Your task to perform on an android device: Go to notification settings Image 0: 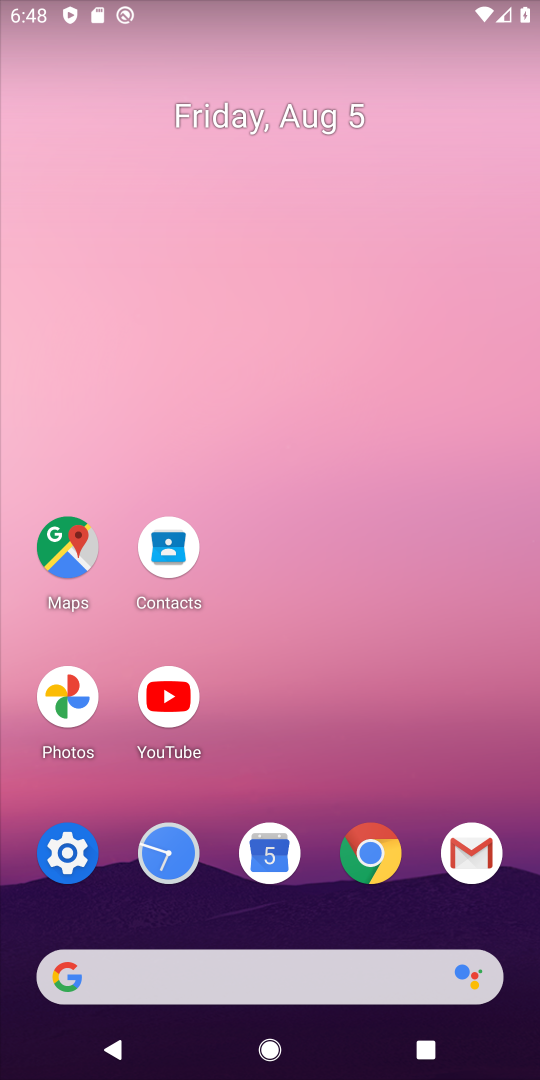
Step 0: click (62, 849)
Your task to perform on an android device: Go to notification settings Image 1: 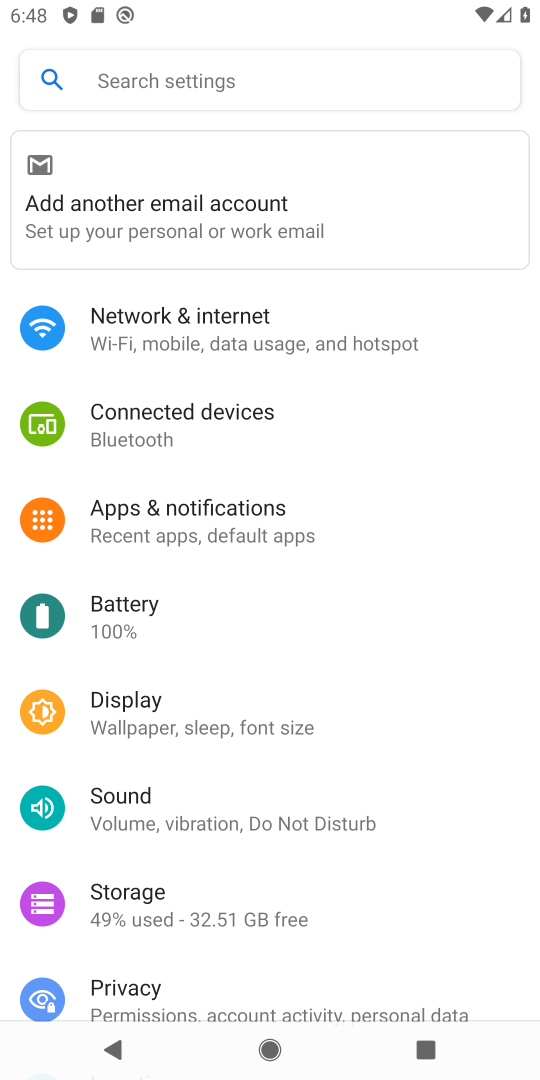
Step 1: click (186, 507)
Your task to perform on an android device: Go to notification settings Image 2: 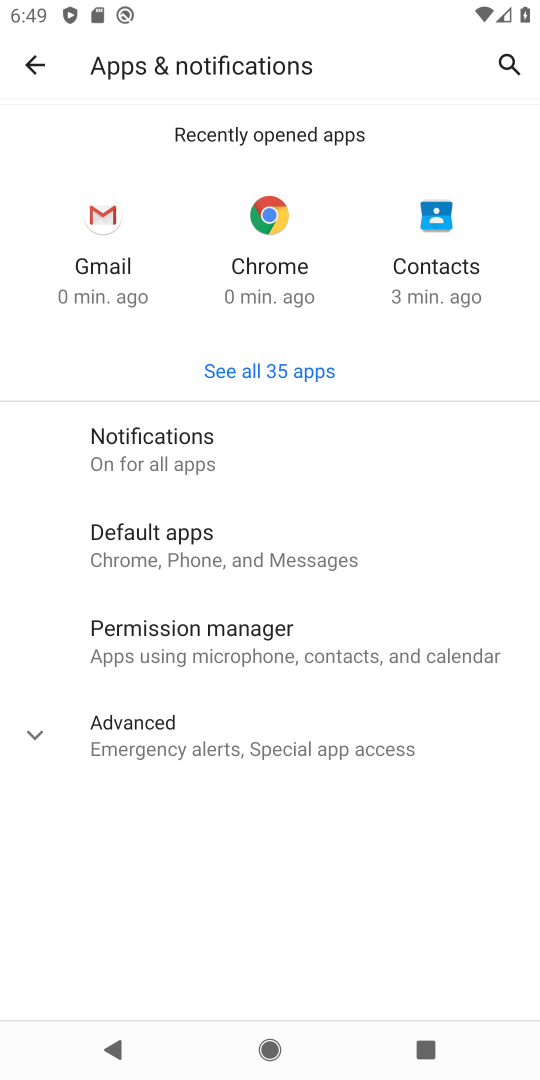
Step 2: task complete